Your task to perform on an android device: change text size in settings app Image 0: 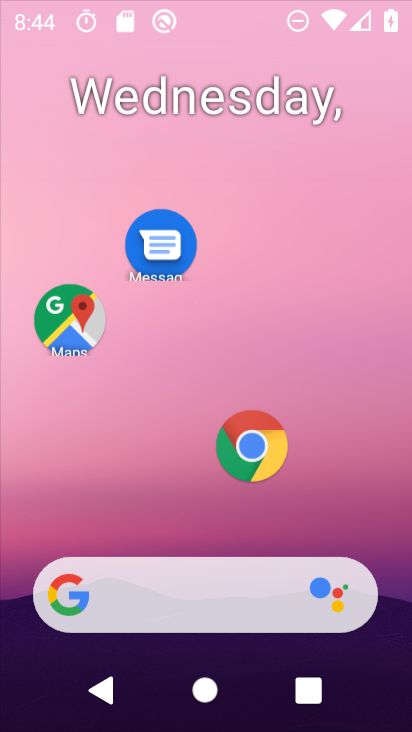
Step 0: press home button
Your task to perform on an android device: change text size in settings app Image 1: 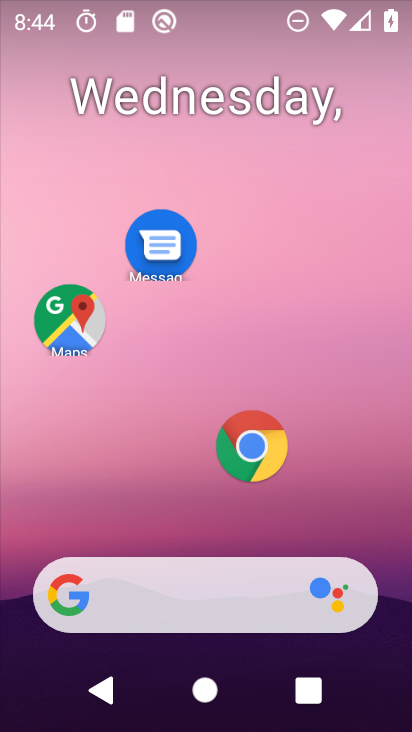
Step 1: drag from (211, 527) to (212, 72)
Your task to perform on an android device: change text size in settings app Image 2: 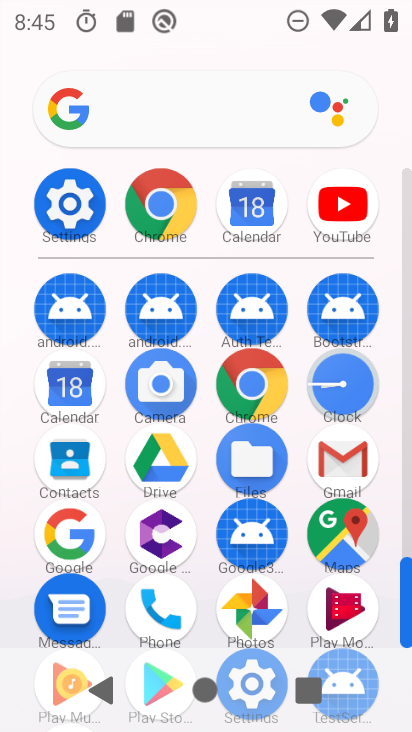
Step 2: click (66, 199)
Your task to perform on an android device: change text size in settings app Image 3: 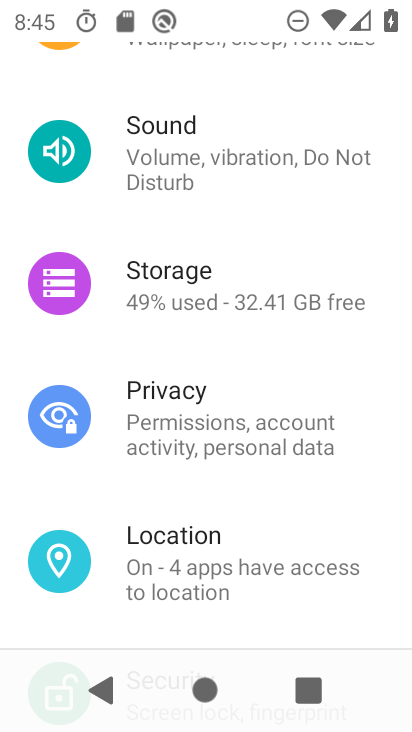
Step 3: drag from (214, 137) to (208, 498)
Your task to perform on an android device: change text size in settings app Image 4: 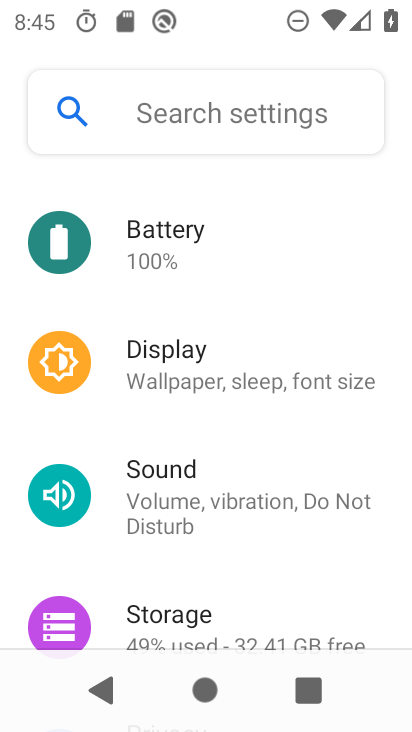
Step 4: click (225, 349)
Your task to perform on an android device: change text size in settings app Image 5: 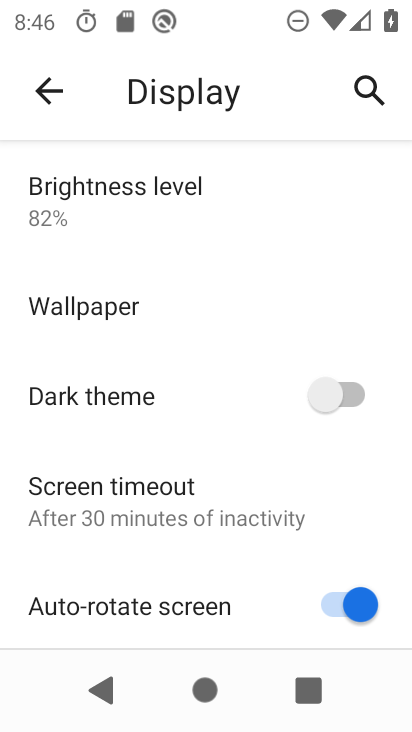
Step 5: drag from (199, 590) to (194, 263)
Your task to perform on an android device: change text size in settings app Image 6: 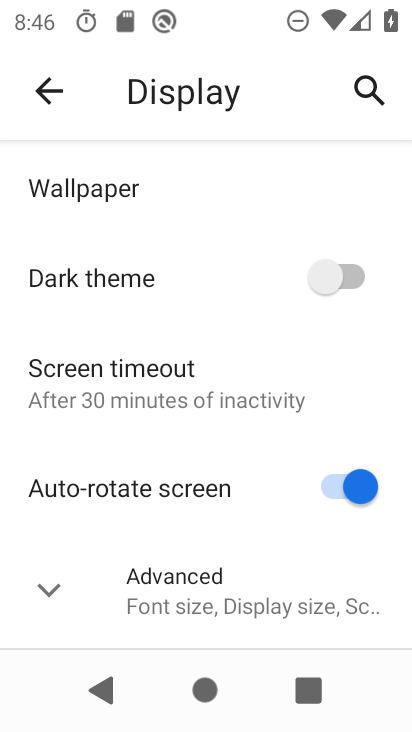
Step 6: click (52, 580)
Your task to perform on an android device: change text size in settings app Image 7: 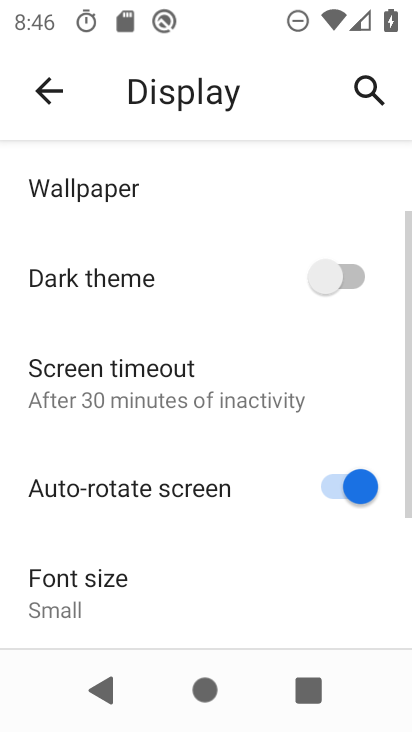
Step 7: click (109, 598)
Your task to perform on an android device: change text size in settings app Image 8: 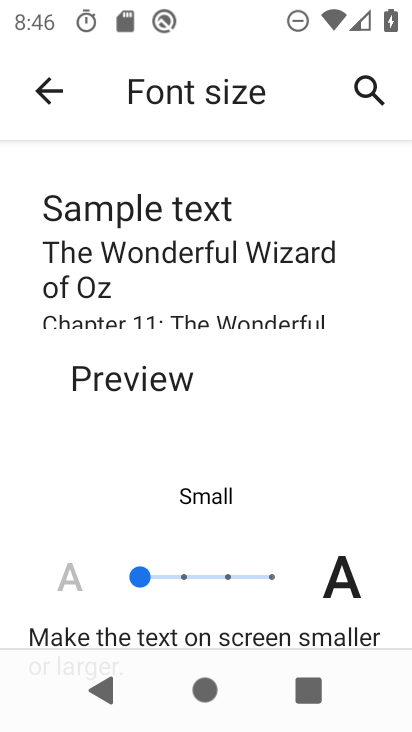
Step 8: click (179, 574)
Your task to perform on an android device: change text size in settings app Image 9: 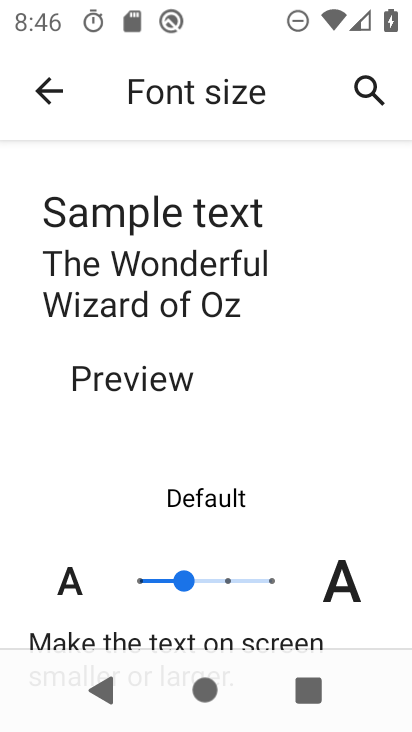
Step 9: task complete